Your task to perform on an android device: turn notification dots off Image 0: 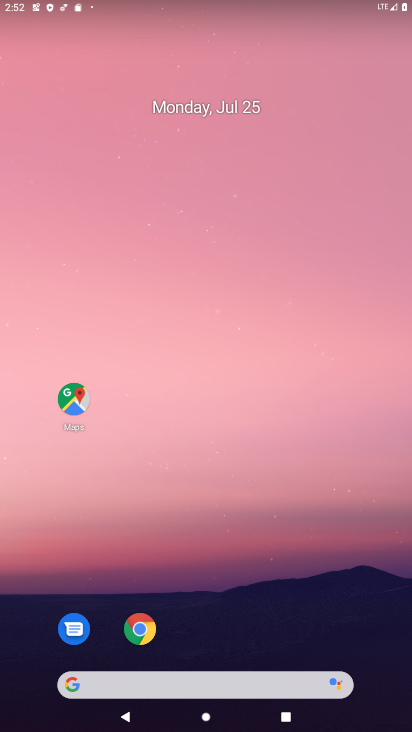
Step 0: drag from (191, 648) to (283, 126)
Your task to perform on an android device: turn notification dots off Image 1: 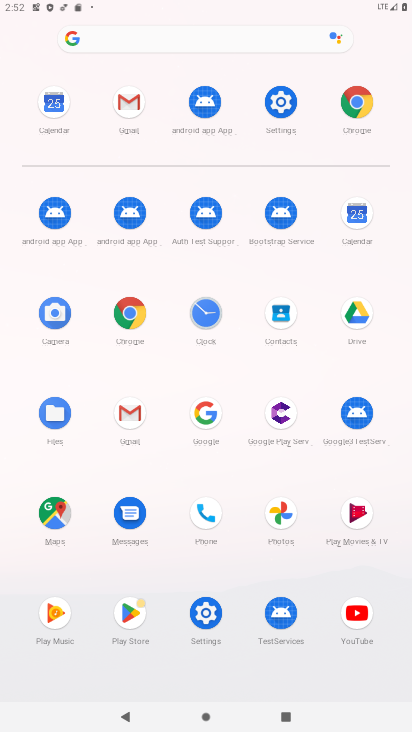
Step 1: click (207, 610)
Your task to perform on an android device: turn notification dots off Image 2: 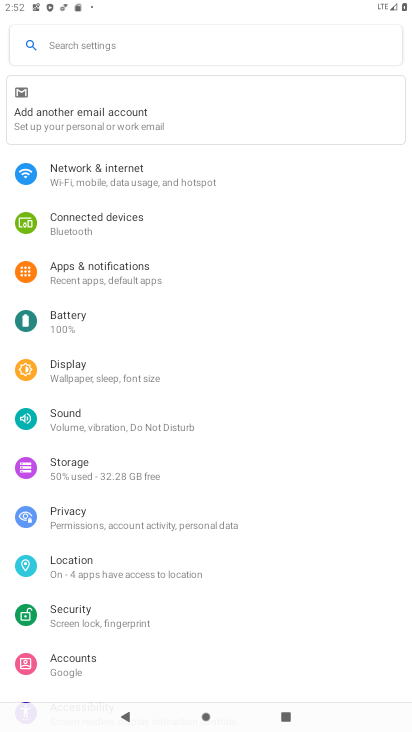
Step 2: click (98, 267)
Your task to perform on an android device: turn notification dots off Image 3: 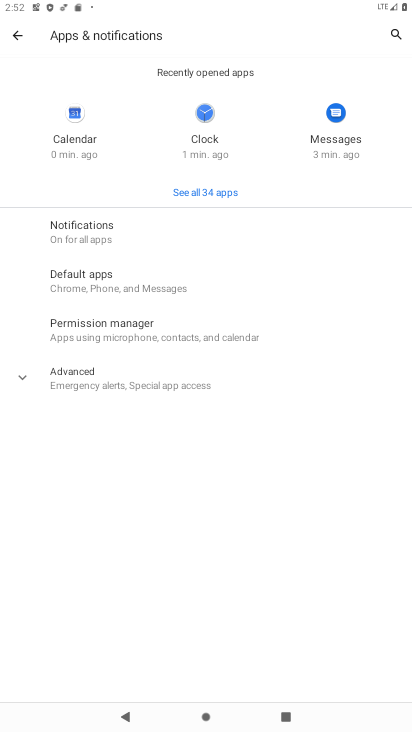
Step 3: click (115, 229)
Your task to perform on an android device: turn notification dots off Image 4: 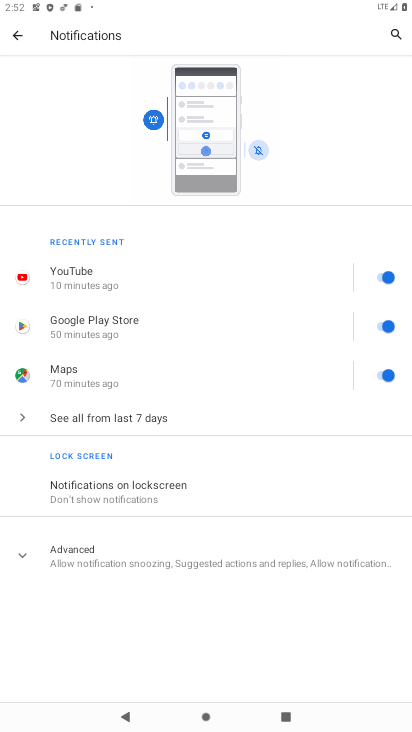
Step 4: click (126, 560)
Your task to perform on an android device: turn notification dots off Image 5: 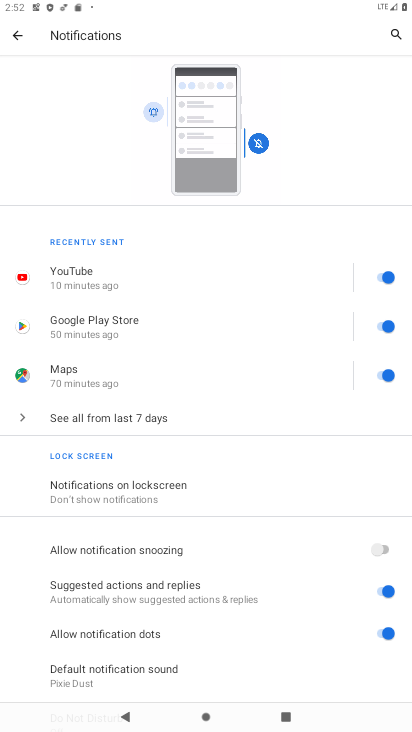
Step 5: click (383, 632)
Your task to perform on an android device: turn notification dots off Image 6: 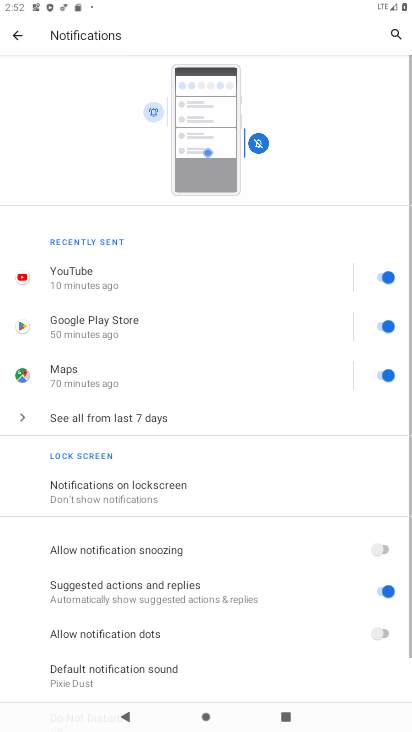
Step 6: task complete